Your task to perform on an android device: check storage Image 0: 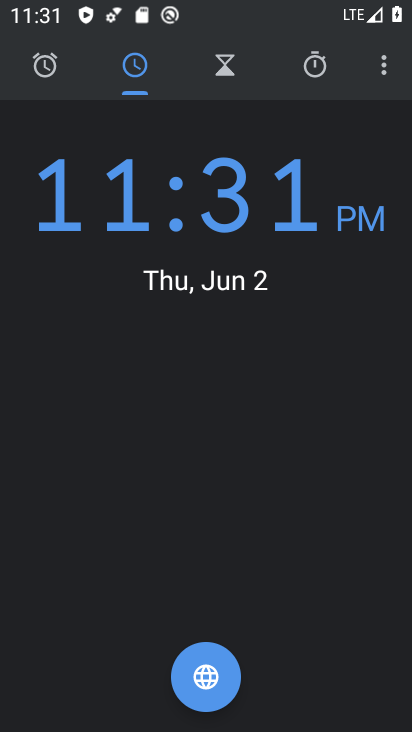
Step 0: press home button
Your task to perform on an android device: check storage Image 1: 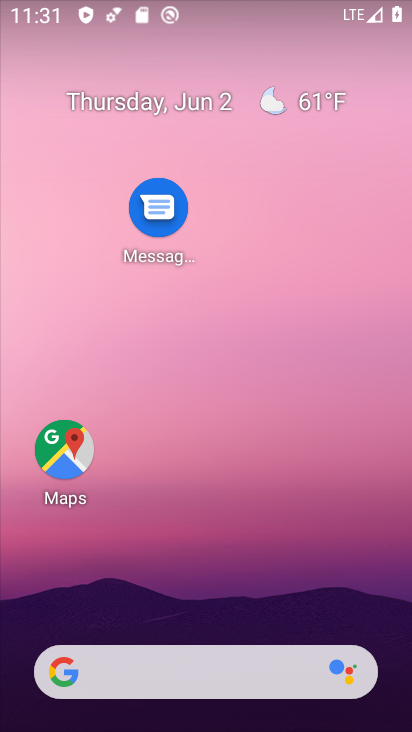
Step 1: drag from (209, 630) to (239, 6)
Your task to perform on an android device: check storage Image 2: 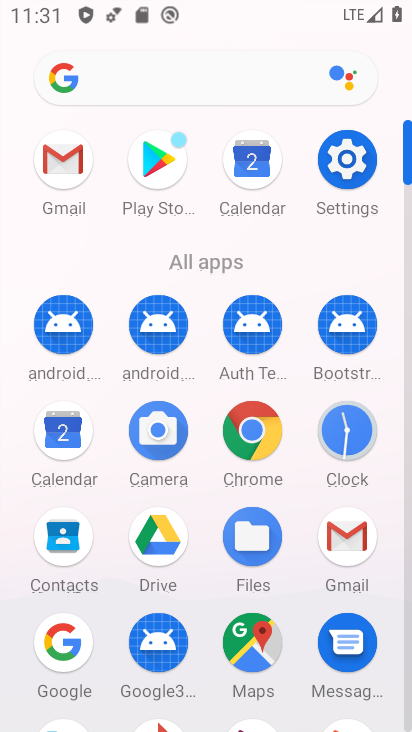
Step 2: click (337, 182)
Your task to perform on an android device: check storage Image 3: 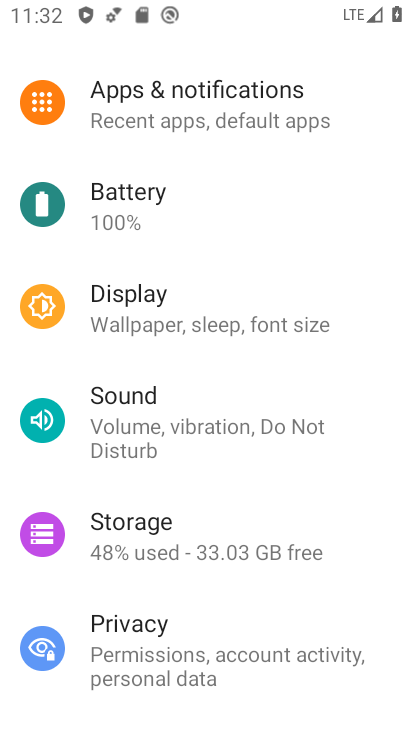
Step 3: click (144, 518)
Your task to perform on an android device: check storage Image 4: 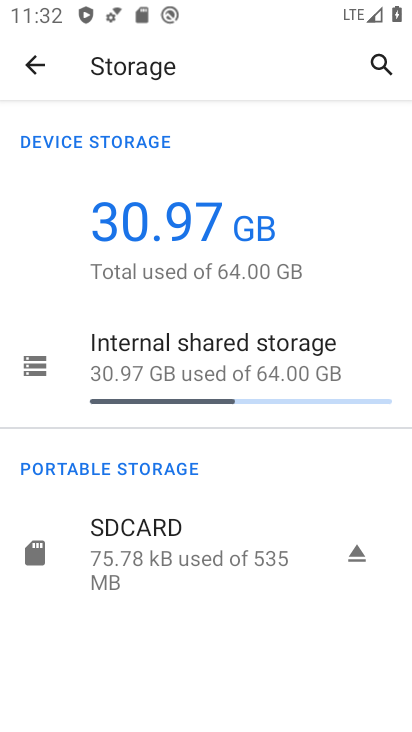
Step 4: click (145, 354)
Your task to perform on an android device: check storage Image 5: 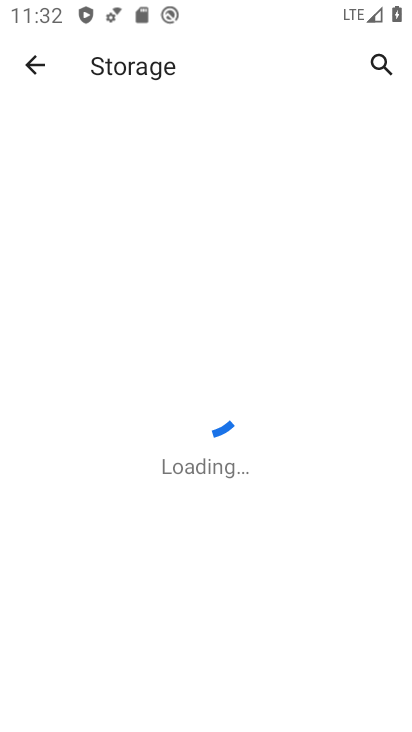
Step 5: task complete